Your task to perform on an android device: Open calendar and show me the first week of next month Image 0: 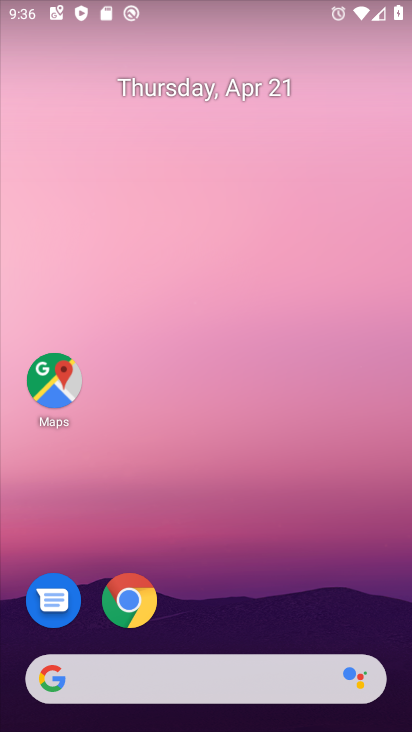
Step 0: drag from (269, 511) to (223, 14)
Your task to perform on an android device: Open calendar and show me the first week of next month Image 1: 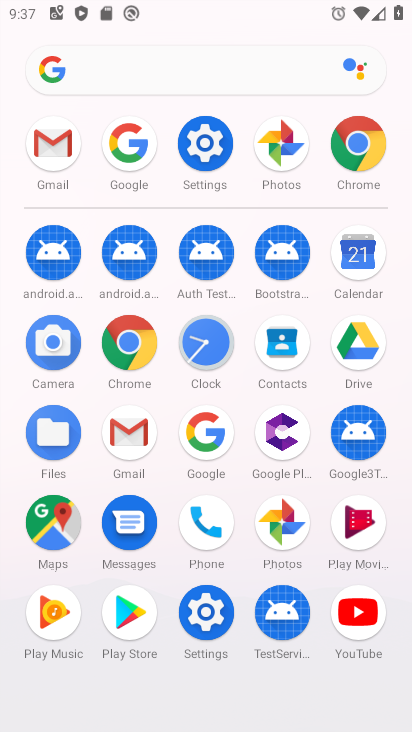
Step 1: click (354, 252)
Your task to perform on an android device: Open calendar and show me the first week of next month Image 2: 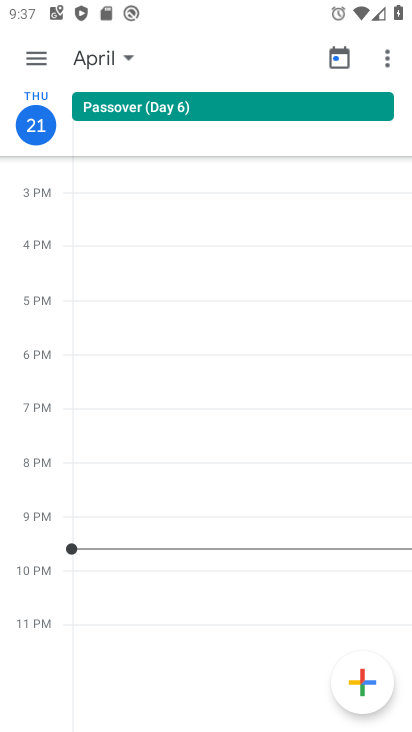
Step 2: click (134, 57)
Your task to perform on an android device: Open calendar and show me the first week of next month Image 3: 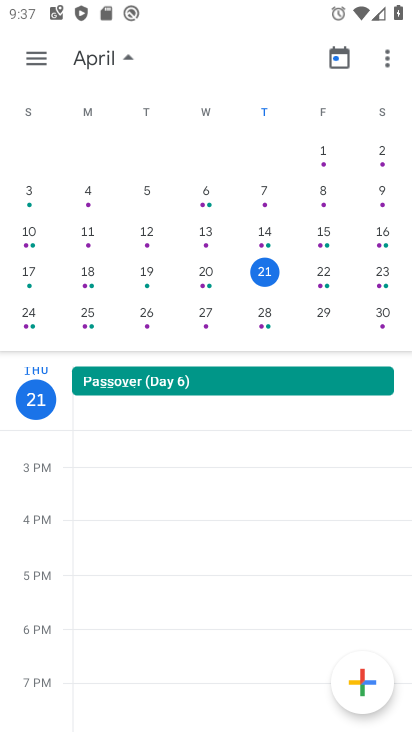
Step 3: drag from (389, 333) to (11, 216)
Your task to perform on an android device: Open calendar and show me the first week of next month Image 4: 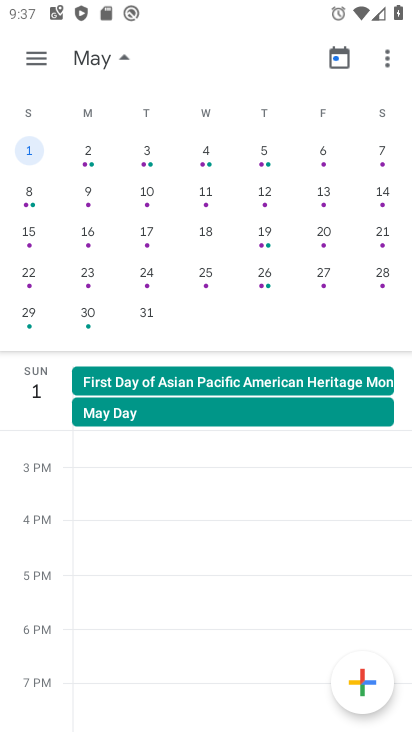
Step 4: click (209, 152)
Your task to perform on an android device: Open calendar and show me the first week of next month Image 5: 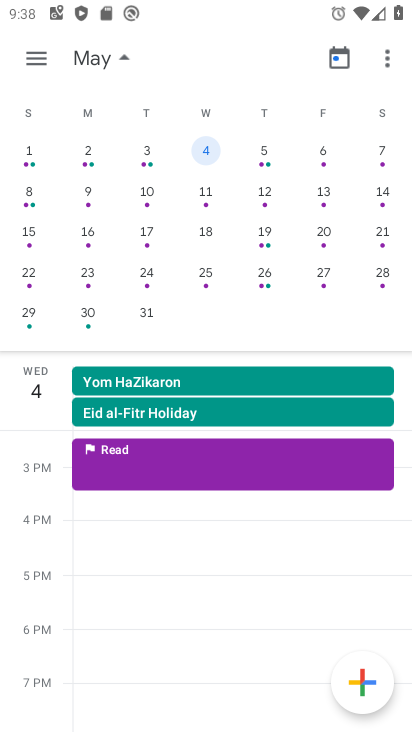
Step 5: task complete